Your task to perform on an android device: Open the calendar and show me this week's events? Image 0: 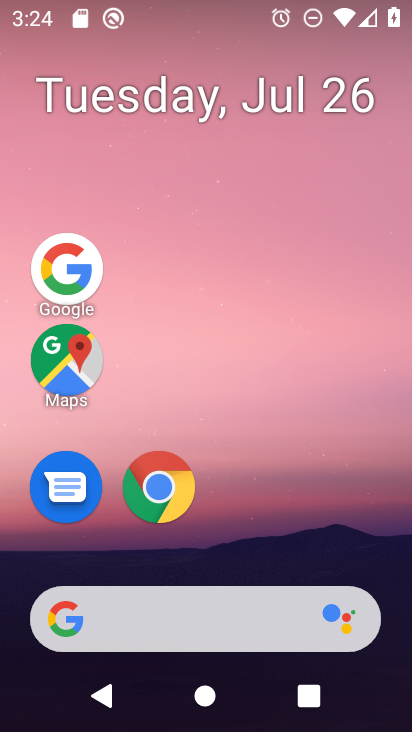
Step 0: drag from (254, 610) to (398, 469)
Your task to perform on an android device: Open the calendar and show me this week's events? Image 1: 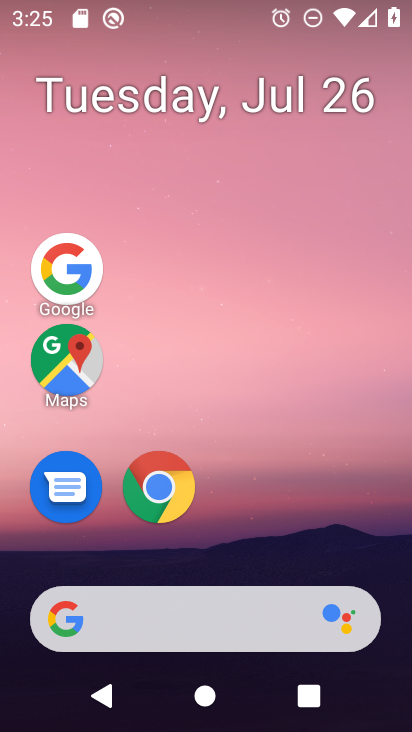
Step 1: drag from (221, 650) to (276, 247)
Your task to perform on an android device: Open the calendar and show me this week's events? Image 2: 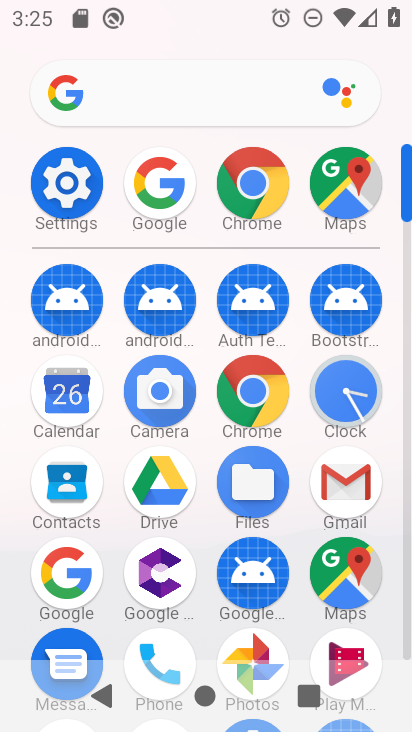
Step 2: drag from (185, 496) to (242, 74)
Your task to perform on an android device: Open the calendar and show me this week's events? Image 3: 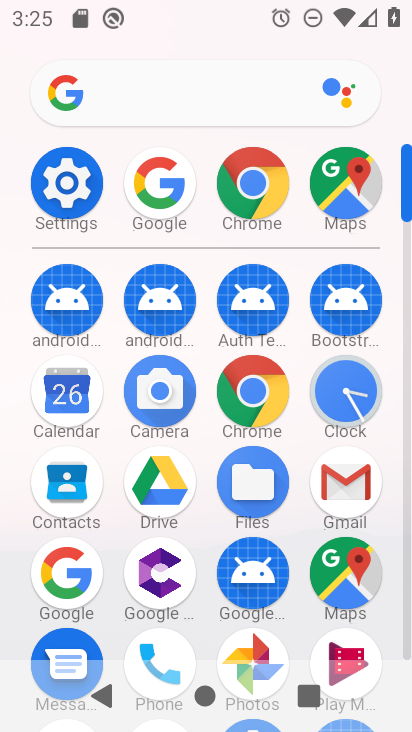
Step 3: drag from (231, 511) to (285, 59)
Your task to perform on an android device: Open the calendar and show me this week's events? Image 4: 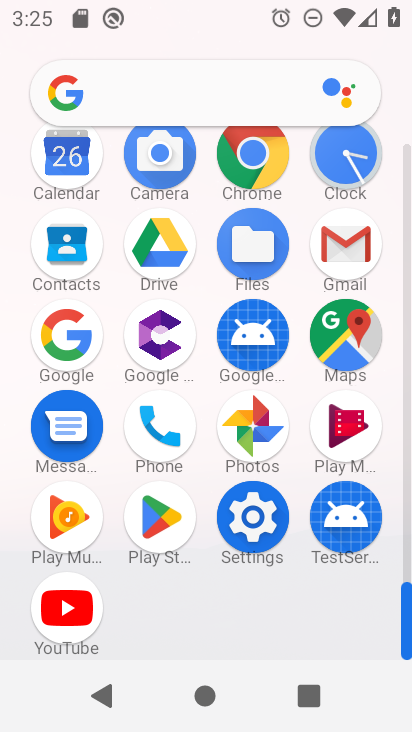
Step 4: click (71, 173)
Your task to perform on an android device: Open the calendar and show me this week's events? Image 5: 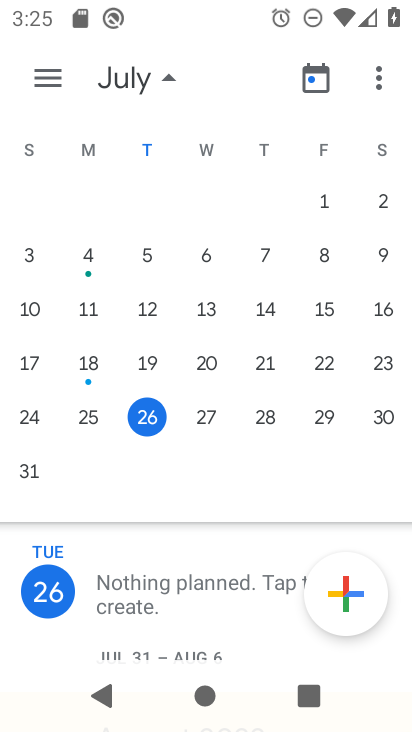
Step 5: click (97, 205)
Your task to perform on an android device: Open the calendar and show me this week's events? Image 6: 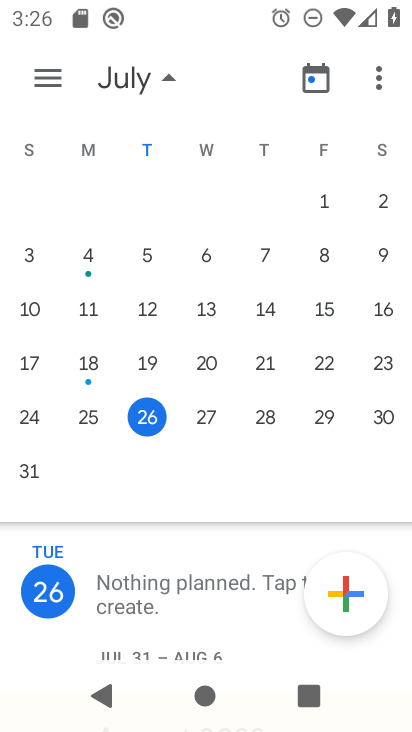
Step 6: click (144, 416)
Your task to perform on an android device: Open the calendar and show me this week's events? Image 7: 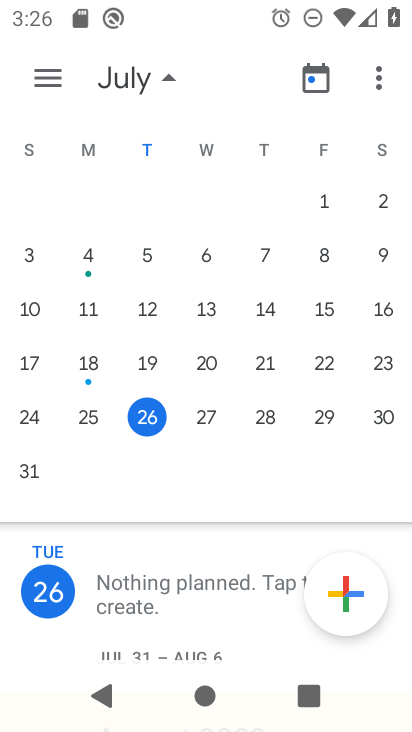
Step 7: task complete